Your task to perform on an android device: turn on priority inbox in the gmail app Image 0: 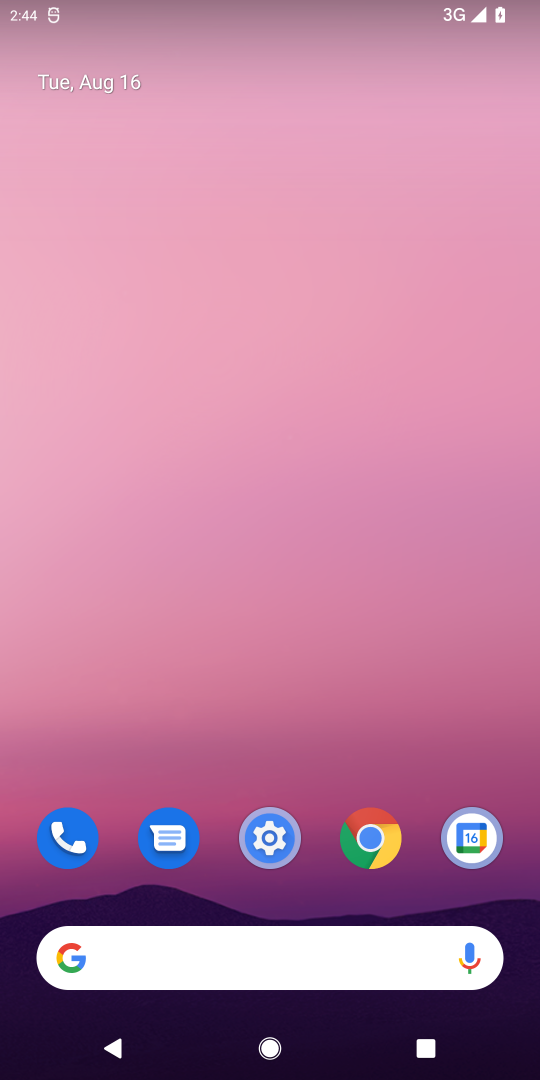
Step 0: press home button
Your task to perform on an android device: turn on priority inbox in the gmail app Image 1: 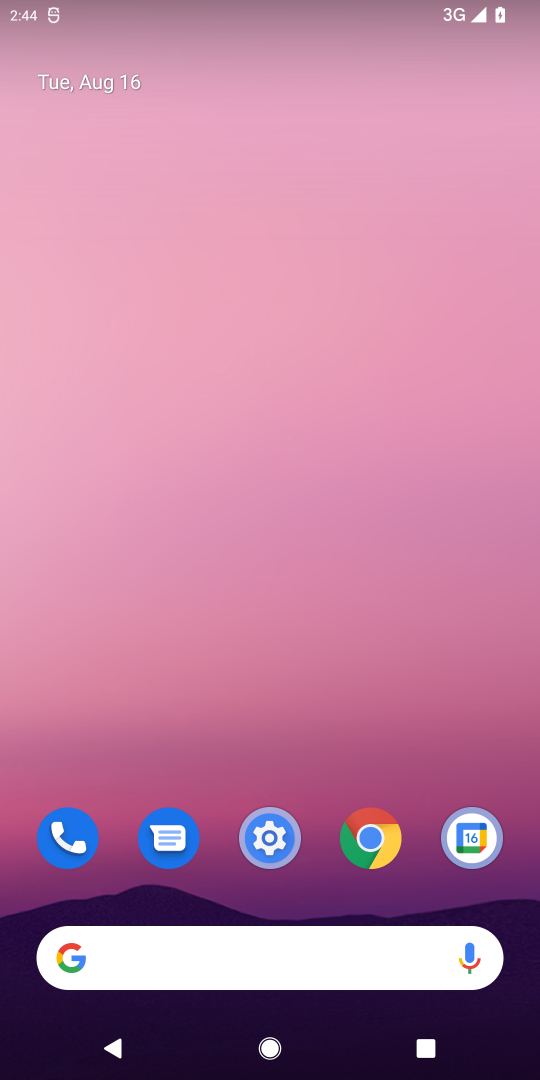
Step 1: drag from (302, 706) to (332, 28)
Your task to perform on an android device: turn on priority inbox in the gmail app Image 2: 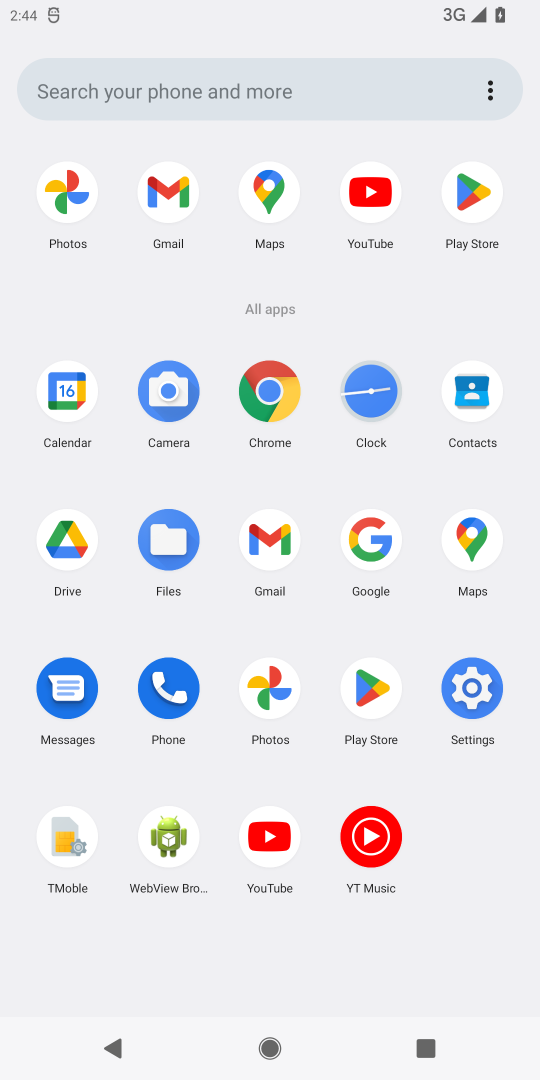
Step 2: click (170, 195)
Your task to perform on an android device: turn on priority inbox in the gmail app Image 3: 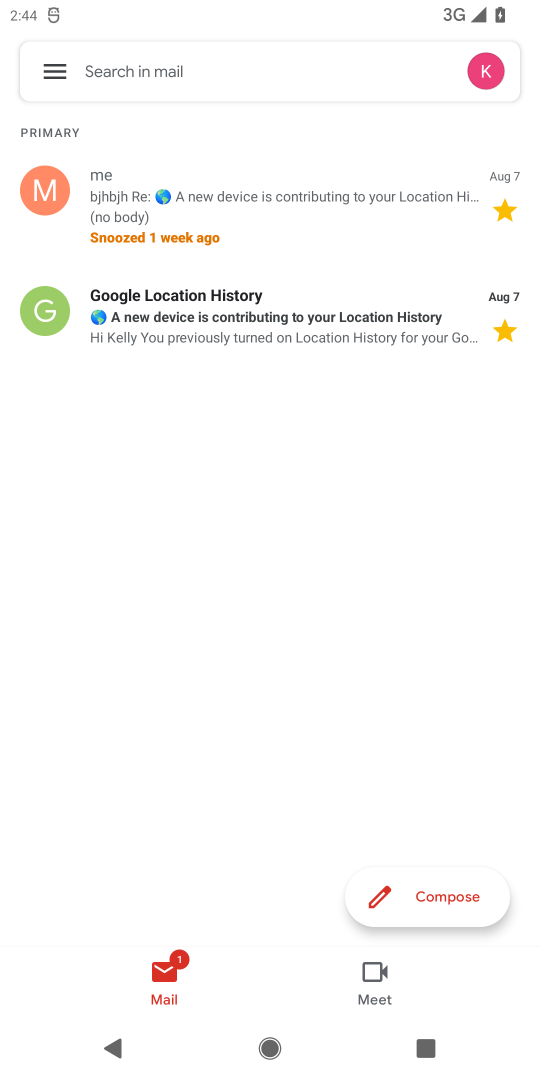
Step 3: click (479, 69)
Your task to perform on an android device: turn on priority inbox in the gmail app Image 4: 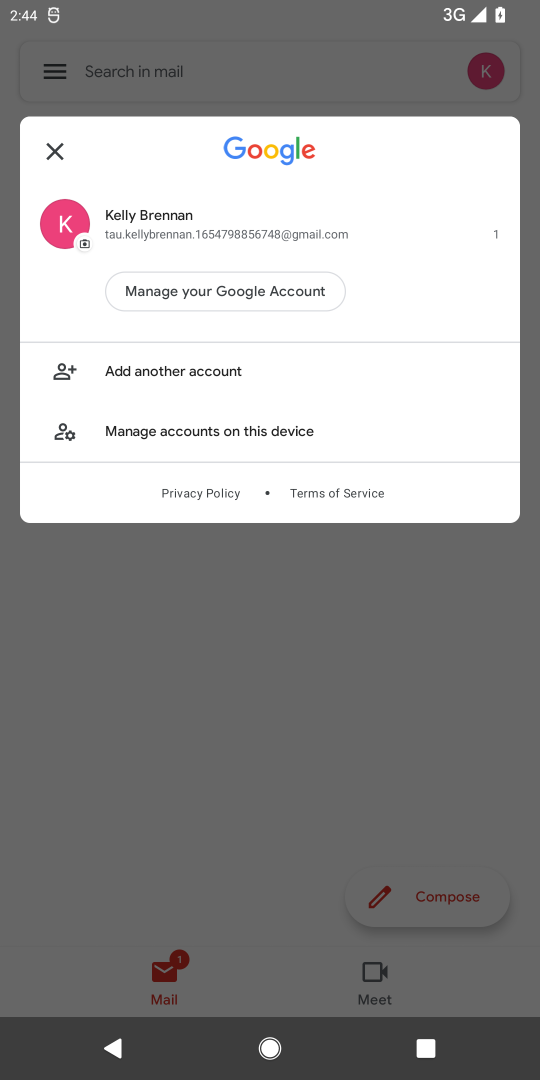
Step 4: click (246, 669)
Your task to perform on an android device: turn on priority inbox in the gmail app Image 5: 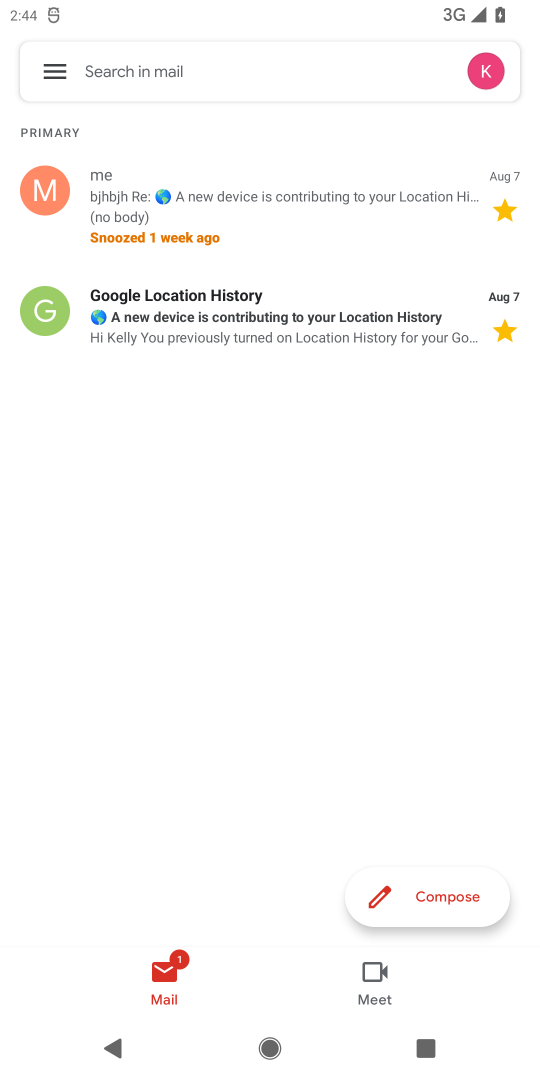
Step 5: click (45, 77)
Your task to perform on an android device: turn on priority inbox in the gmail app Image 6: 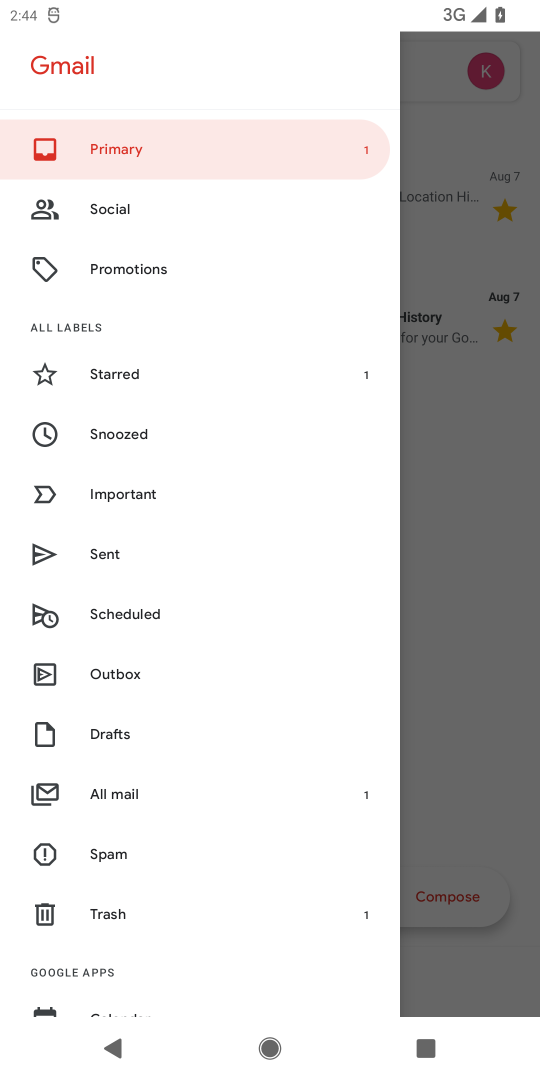
Step 6: drag from (130, 971) to (126, 672)
Your task to perform on an android device: turn on priority inbox in the gmail app Image 7: 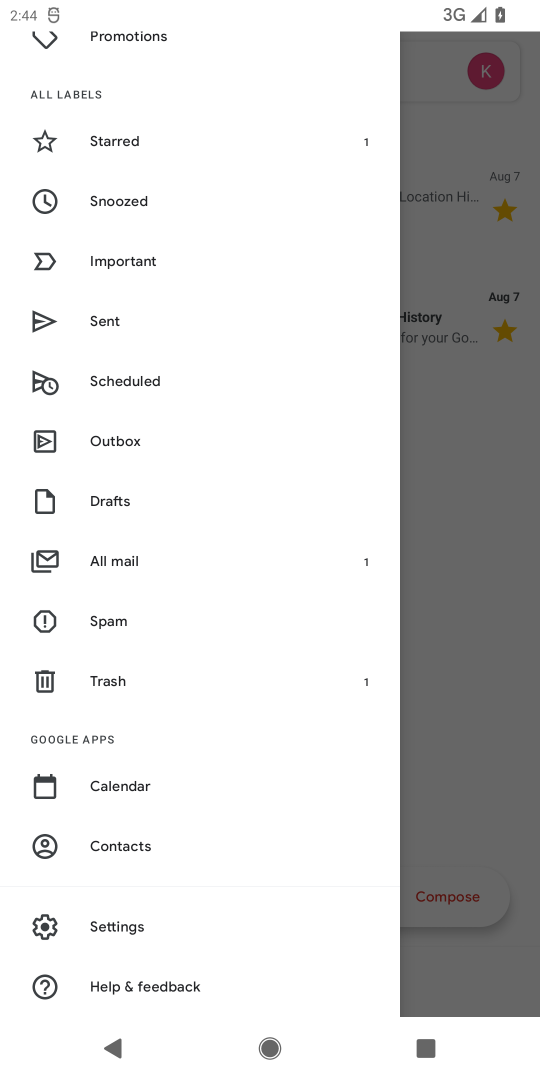
Step 7: click (116, 915)
Your task to perform on an android device: turn on priority inbox in the gmail app Image 8: 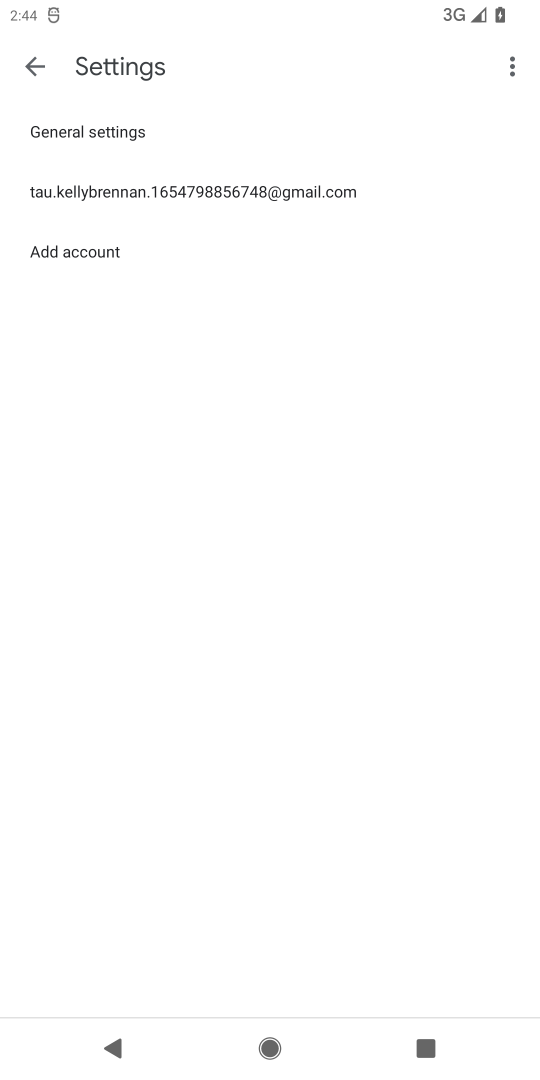
Step 8: click (179, 192)
Your task to perform on an android device: turn on priority inbox in the gmail app Image 9: 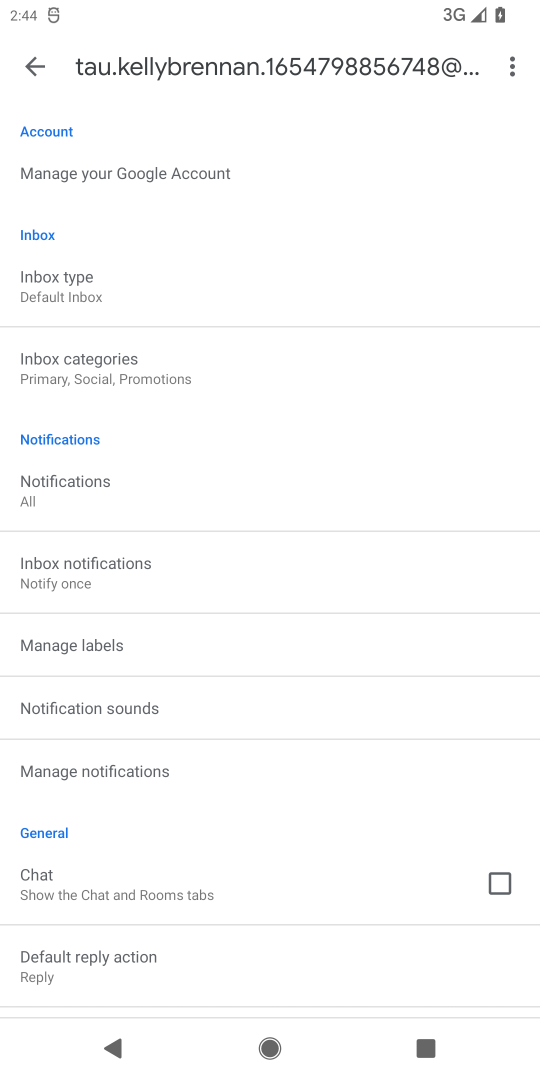
Step 9: click (55, 286)
Your task to perform on an android device: turn on priority inbox in the gmail app Image 10: 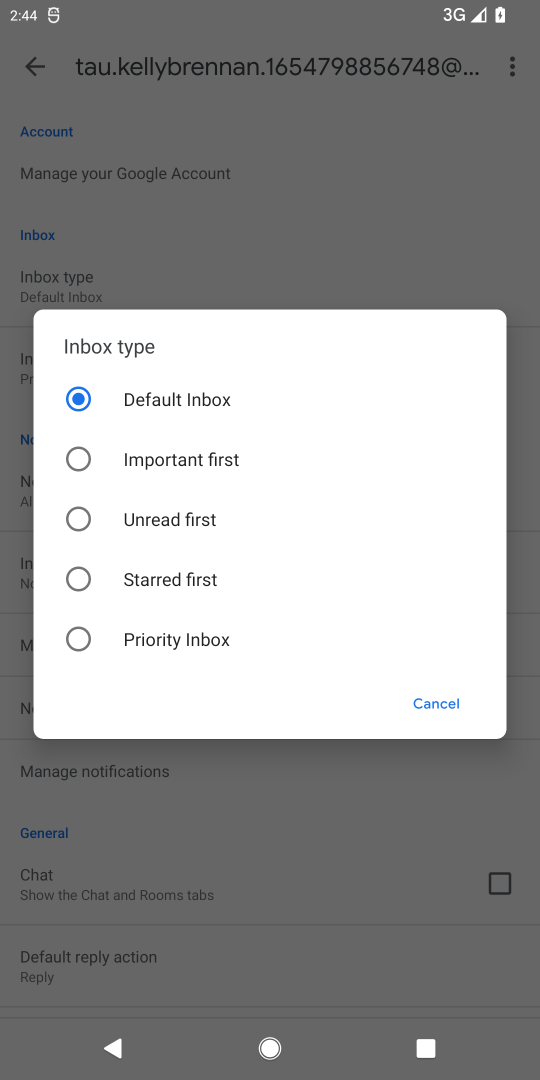
Step 10: click (77, 636)
Your task to perform on an android device: turn on priority inbox in the gmail app Image 11: 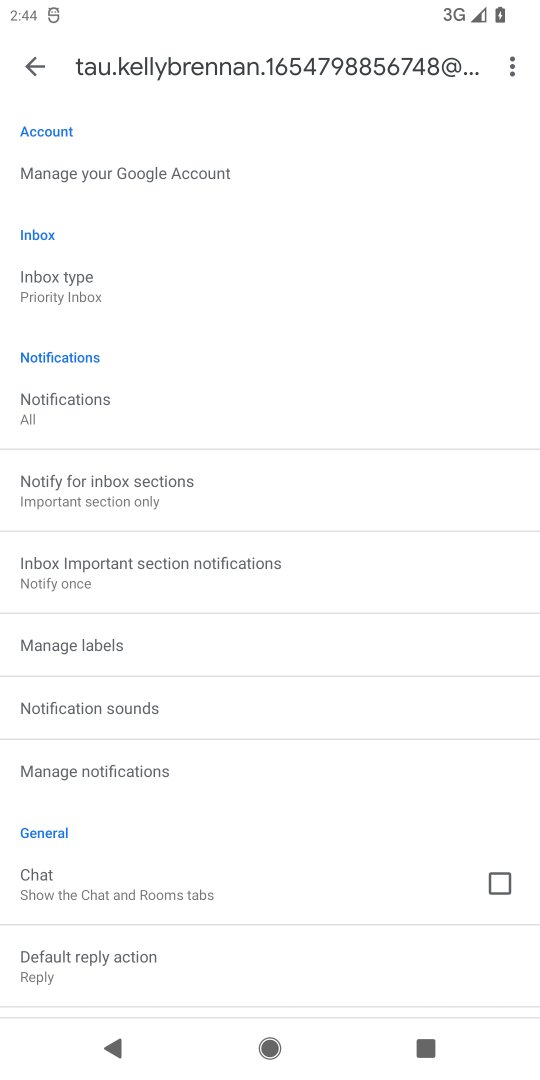
Step 11: task complete